Your task to perform on an android device: Search for "usb-a to usb-b" on bestbuy, select the first entry, add it to the cart, then select checkout. Image 0: 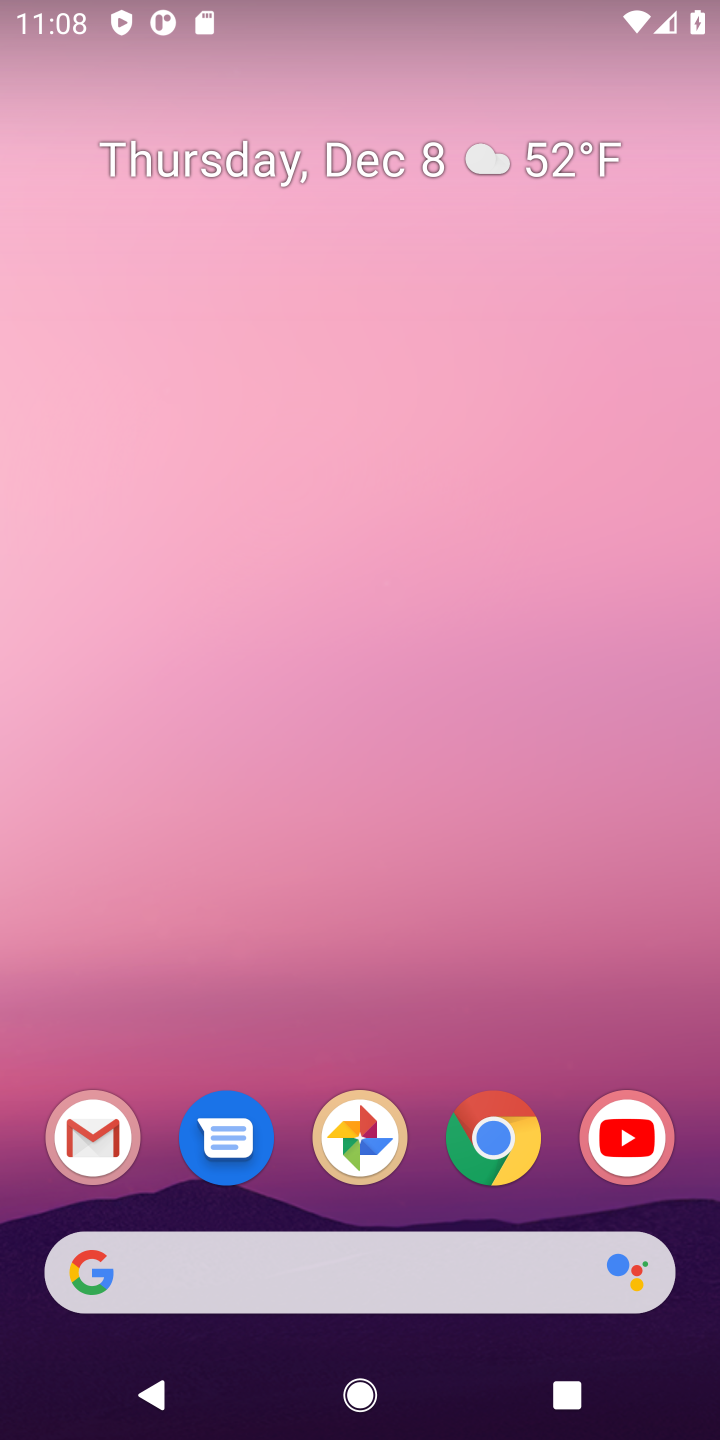
Step 0: click (517, 1167)
Your task to perform on an android device: Search for "usb-a to usb-b" on bestbuy, select the first entry, add it to the cart, then select checkout. Image 1: 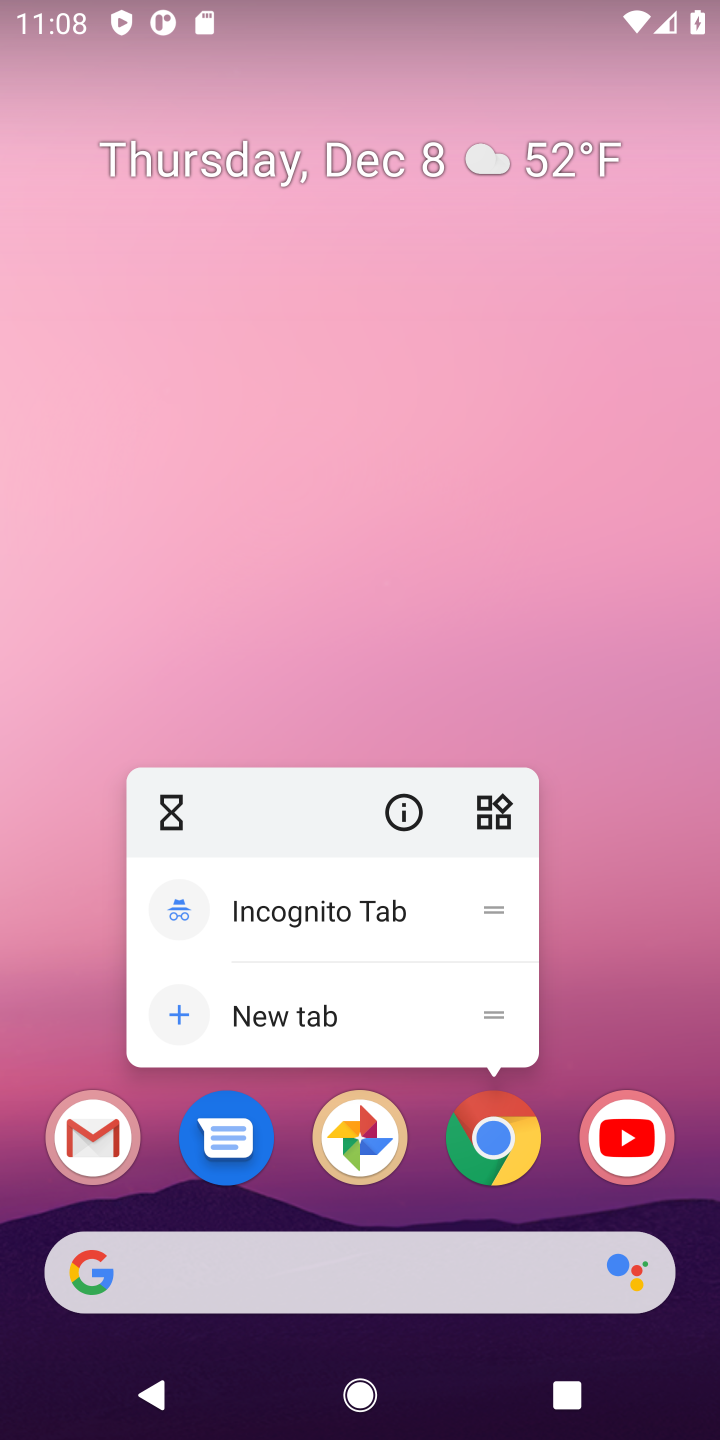
Step 1: click (493, 1145)
Your task to perform on an android device: Search for "usb-a to usb-b" on bestbuy, select the first entry, add it to the cart, then select checkout. Image 2: 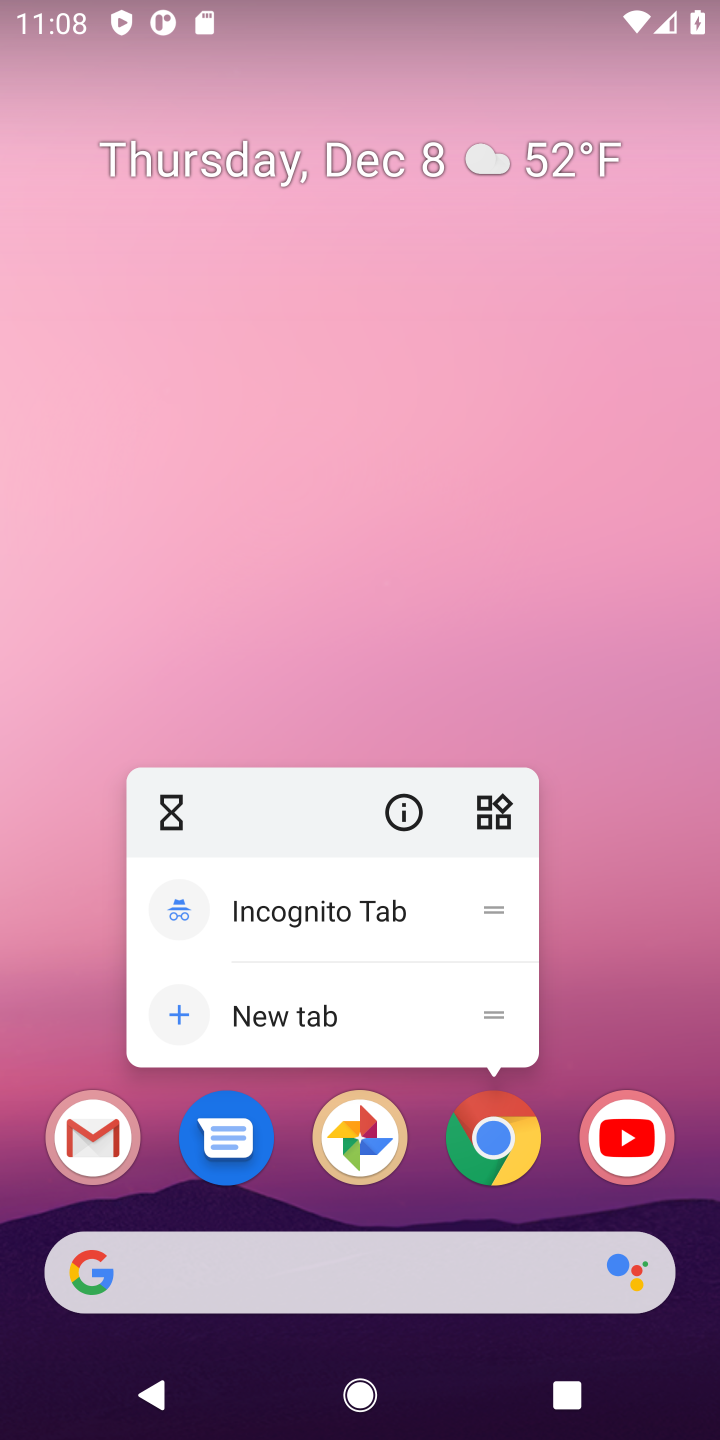
Step 2: click (492, 1145)
Your task to perform on an android device: Search for "usb-a to usb-b" on bestbuy, select the first entry, add it to the cart, then select checkout. Image 3: 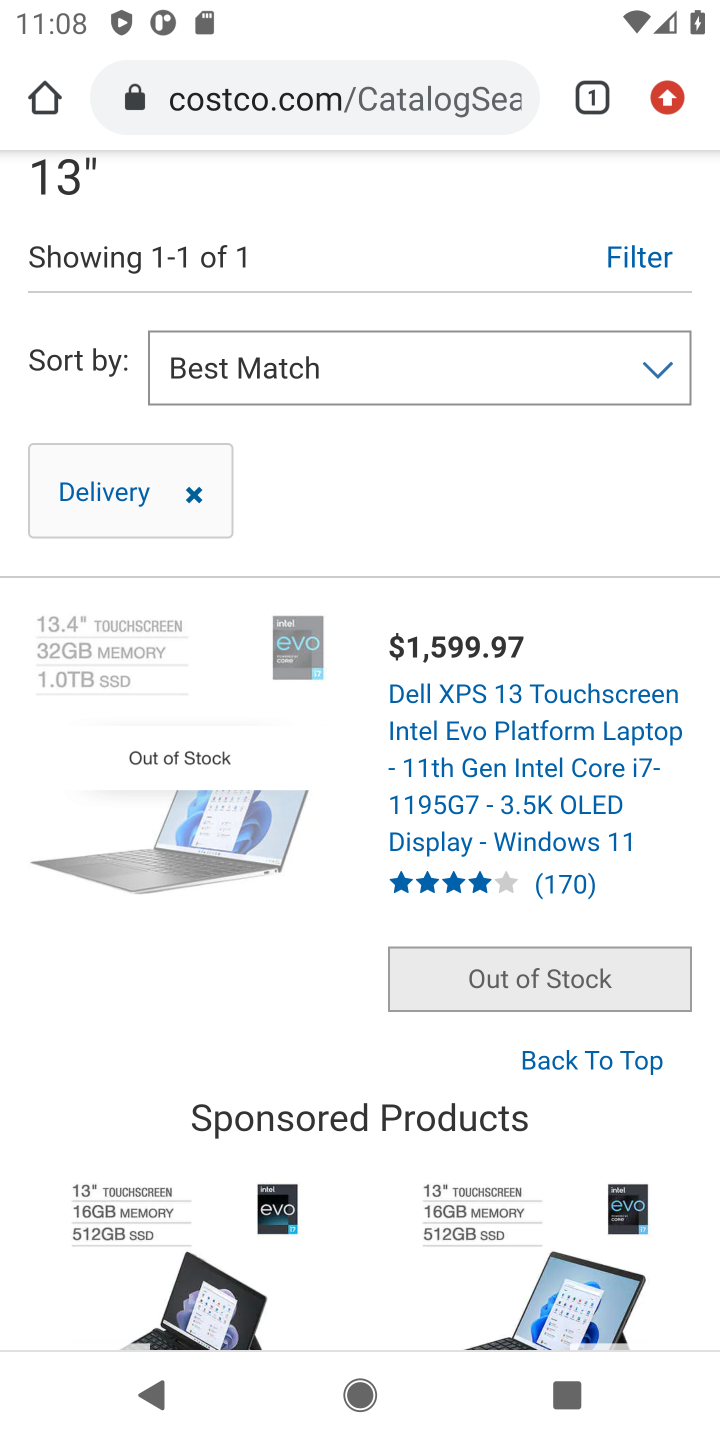
Step 3: click (316, 89)
Your task to perform on an android device: Search for "usb-a to usb-b" on bestbuy, select the first entry, add it to the cart, then select checkout. Image 4: 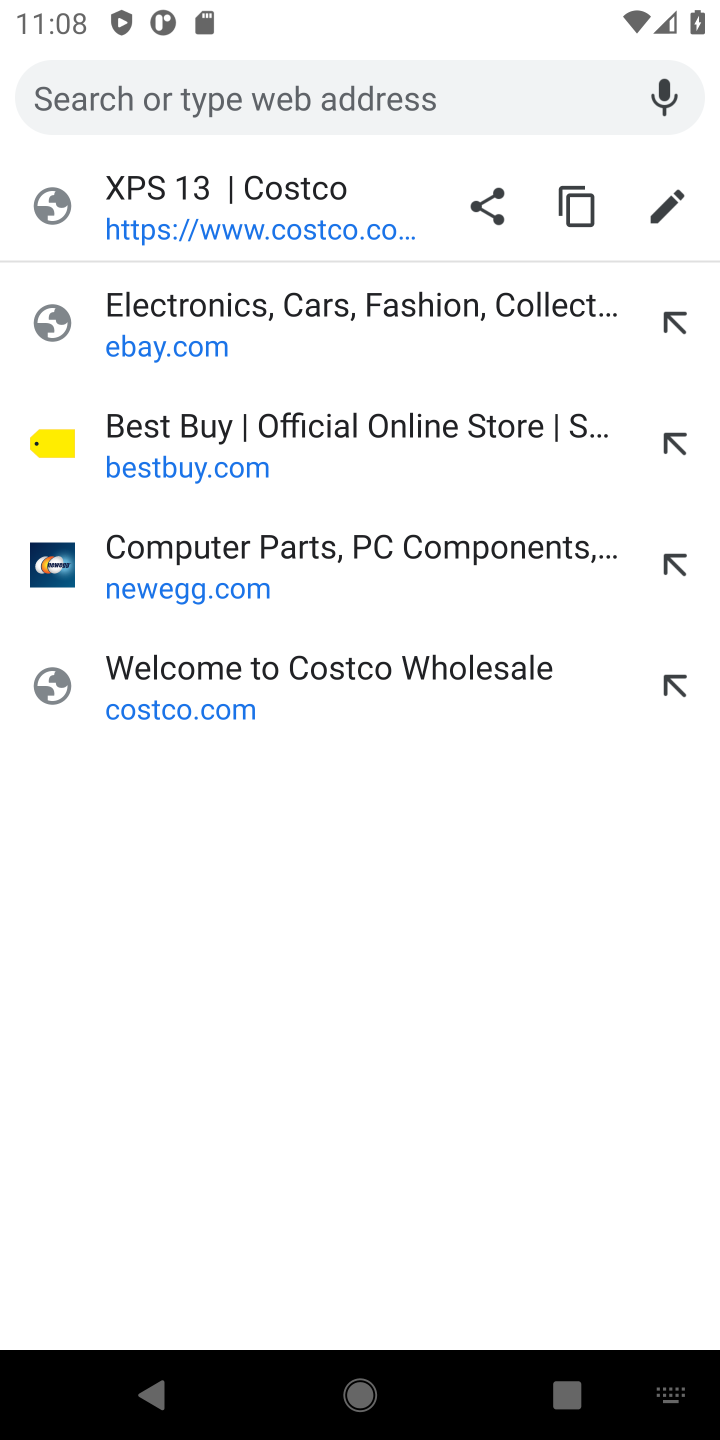
Step 4: type "bestbuy"
Your task to perform on an android device: Search for "usb-a to usb-b" on bestbuy, select the first entry, add it to the cart, then select checkout. Image 5: 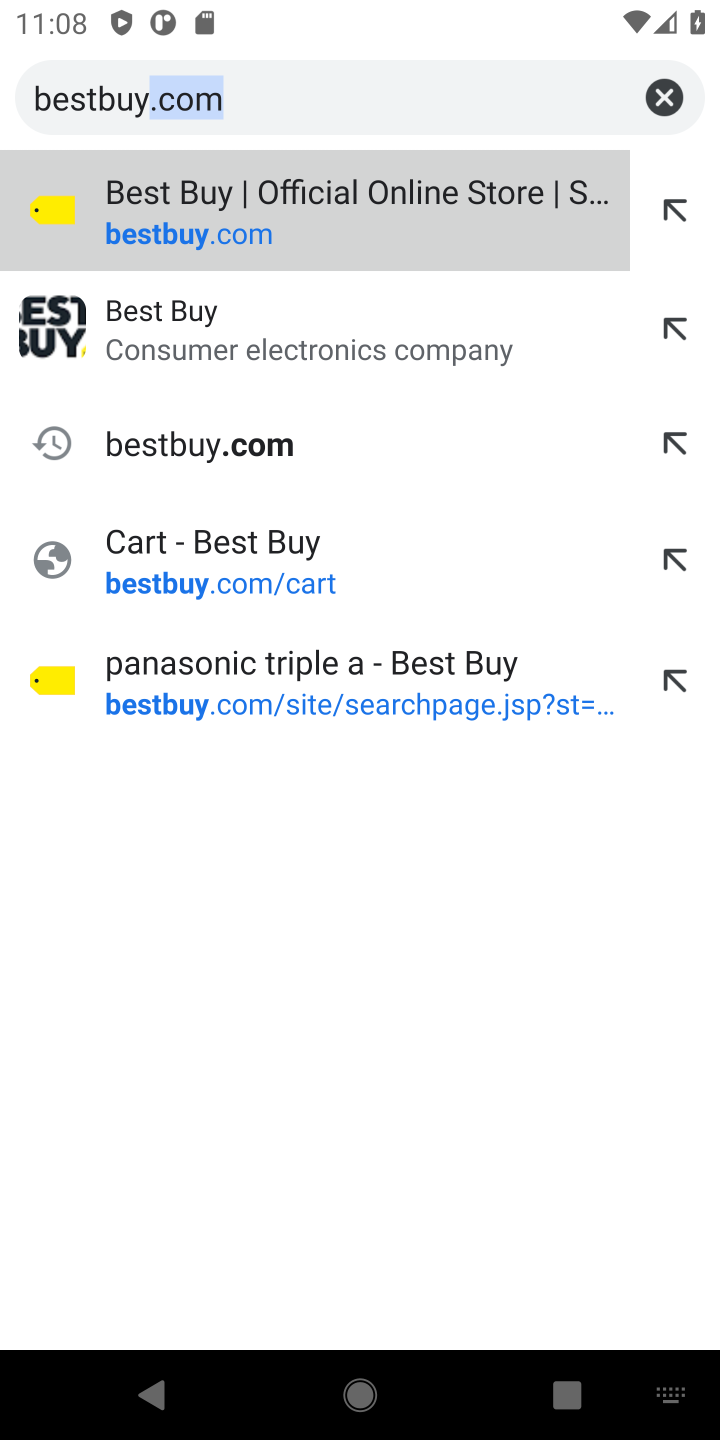
Step 5: click (315, 226)
Your task to perform on an android device: Search for "usb-a to usb-b" on bestbuy, select the first entry, add it to the cart, then select checkout. Image 6: 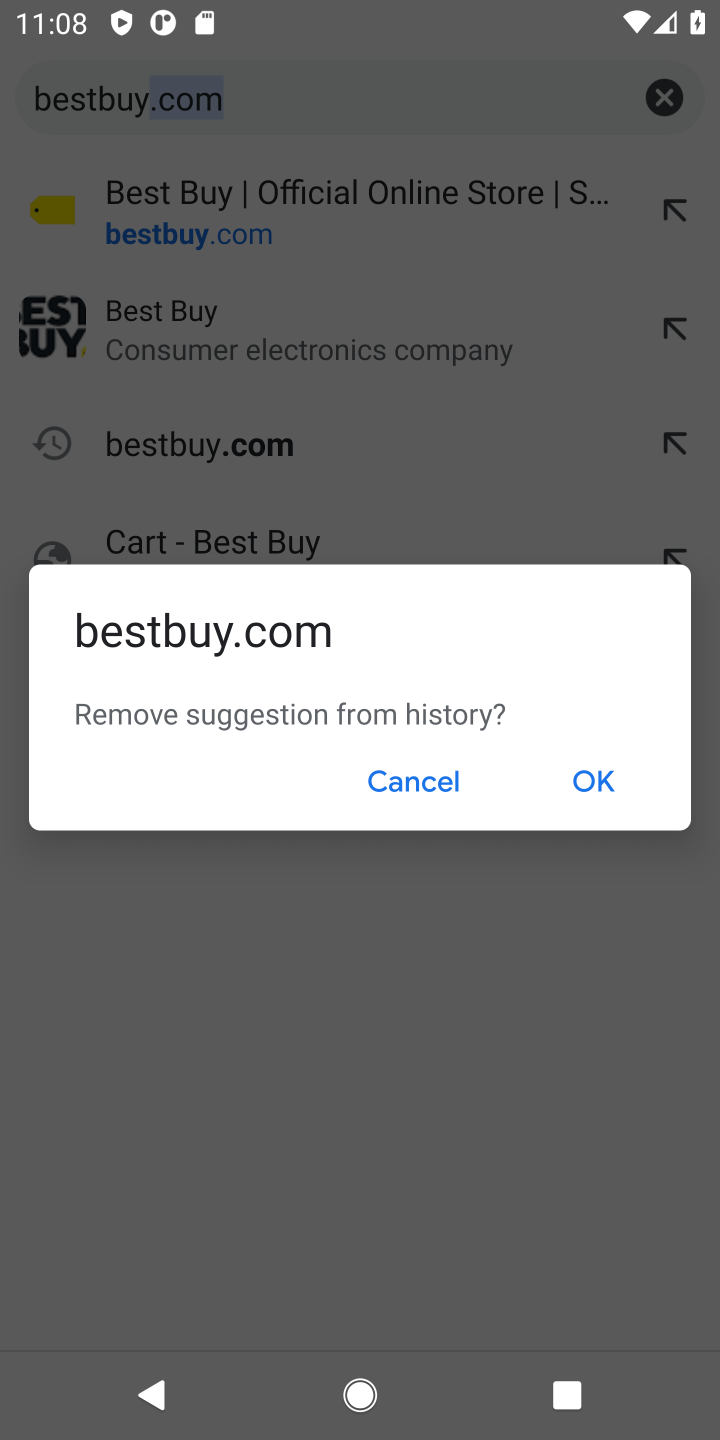
Step 6: click (590, 785)
Your task to perform on an android device: Search for "usb-a to usb-b" on bestbuy, select the first entry, add it to the cart, then select checkout. Image 7: 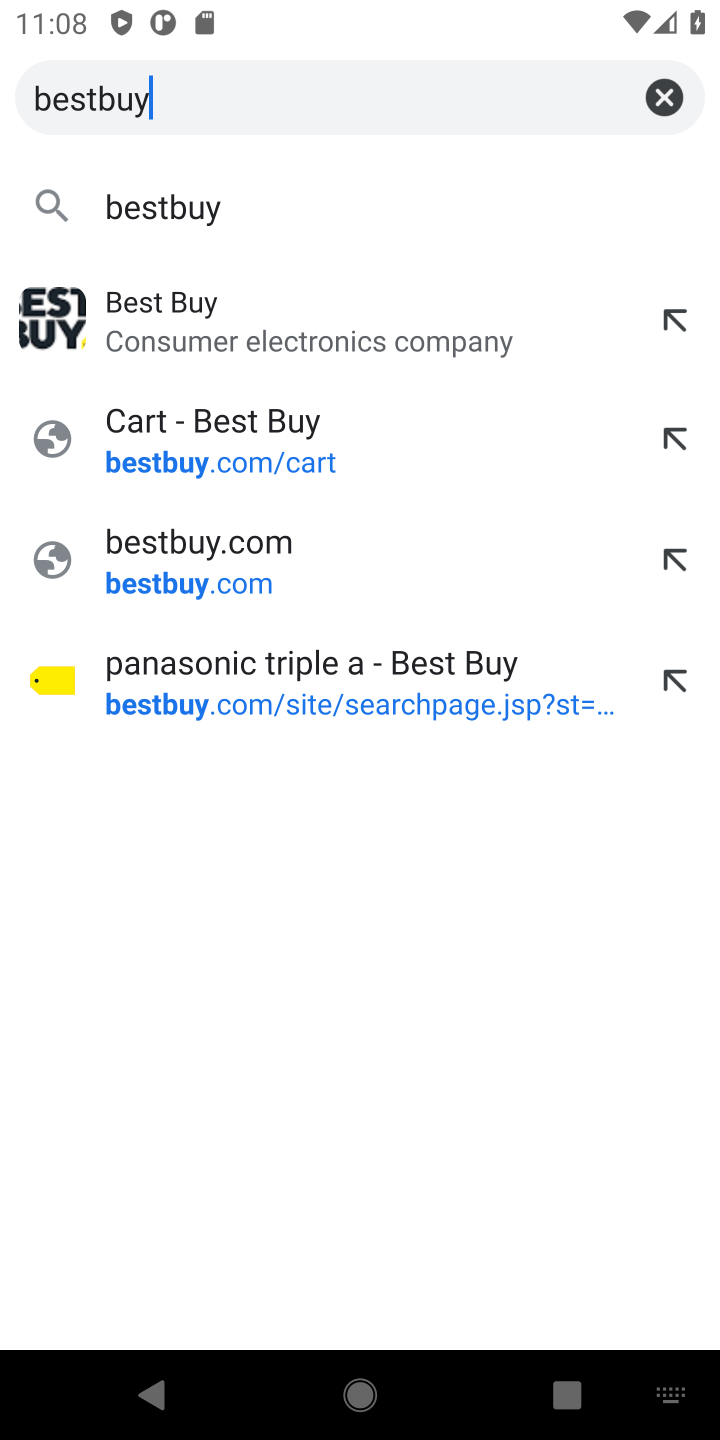
Step 7: click (262, 572)
Your task to perform on an android device: Search for "usb-a to usb-b" on bestbuy, select the first entry, add it to the cart, then select checkout. Image 8: 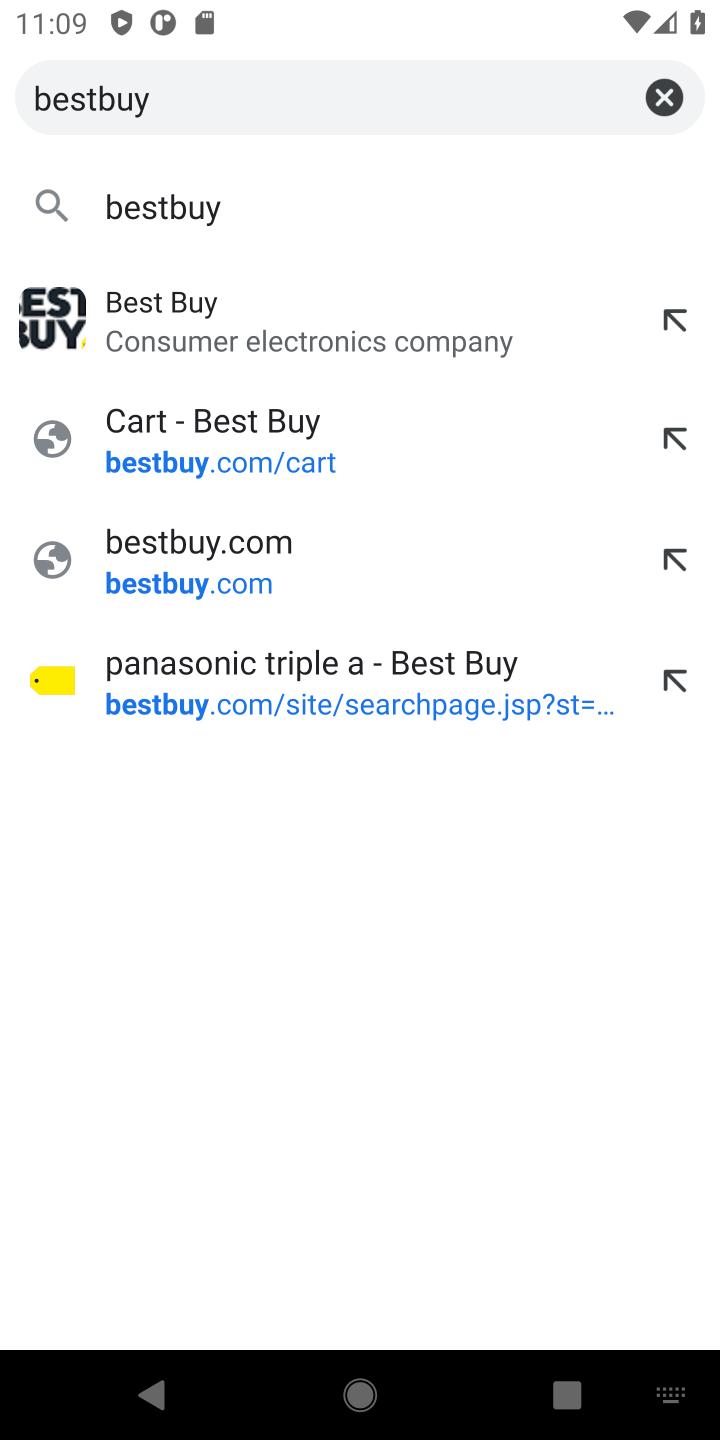
Step 8: click (213, 591)
Your task to perform on an android device: Search for "usb-a to usb-b" on bestbuy, select the first entry, add it to the cart, then select checkout. Image 9: 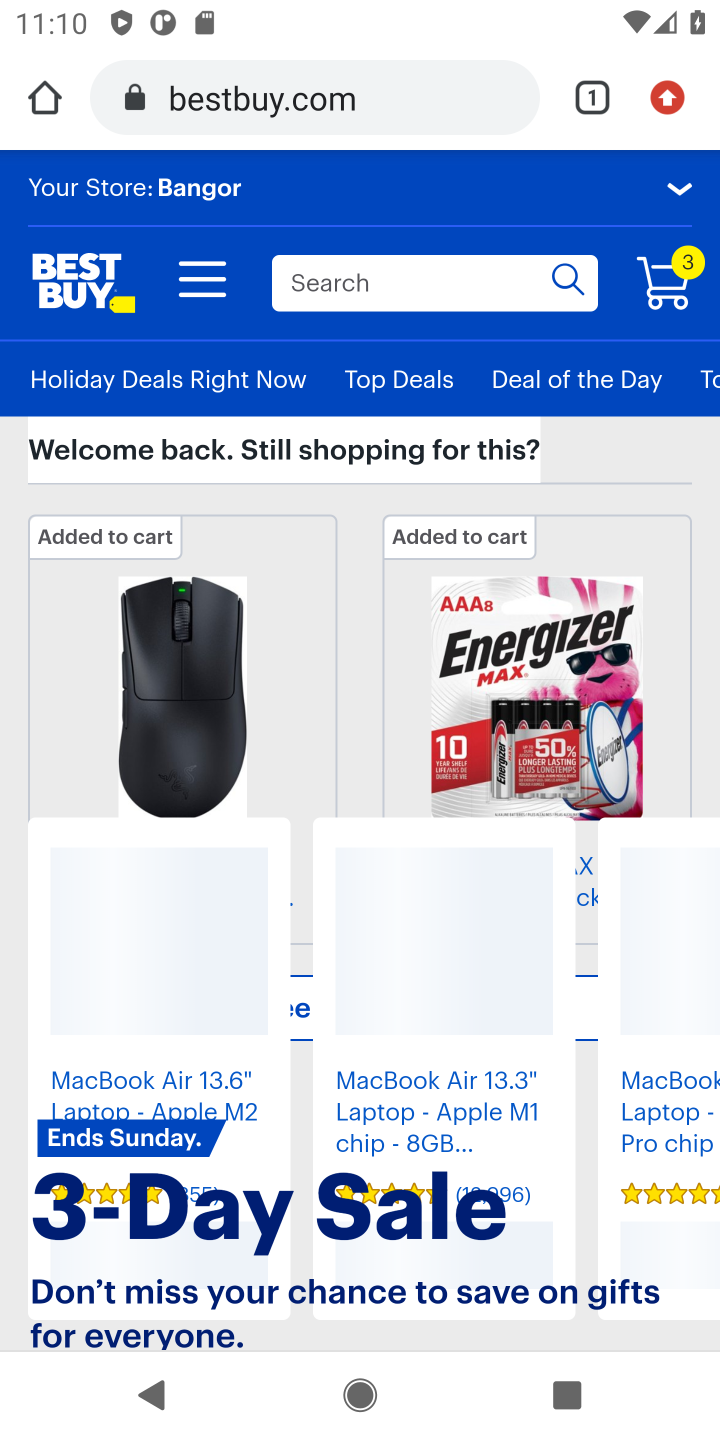
Step 9: click (339, 275)
Your task to perform on an android device: Search for "usb-a to usb-b" on bestbuy, select the first entry, add it to the cart, then select checkout. Image 10: 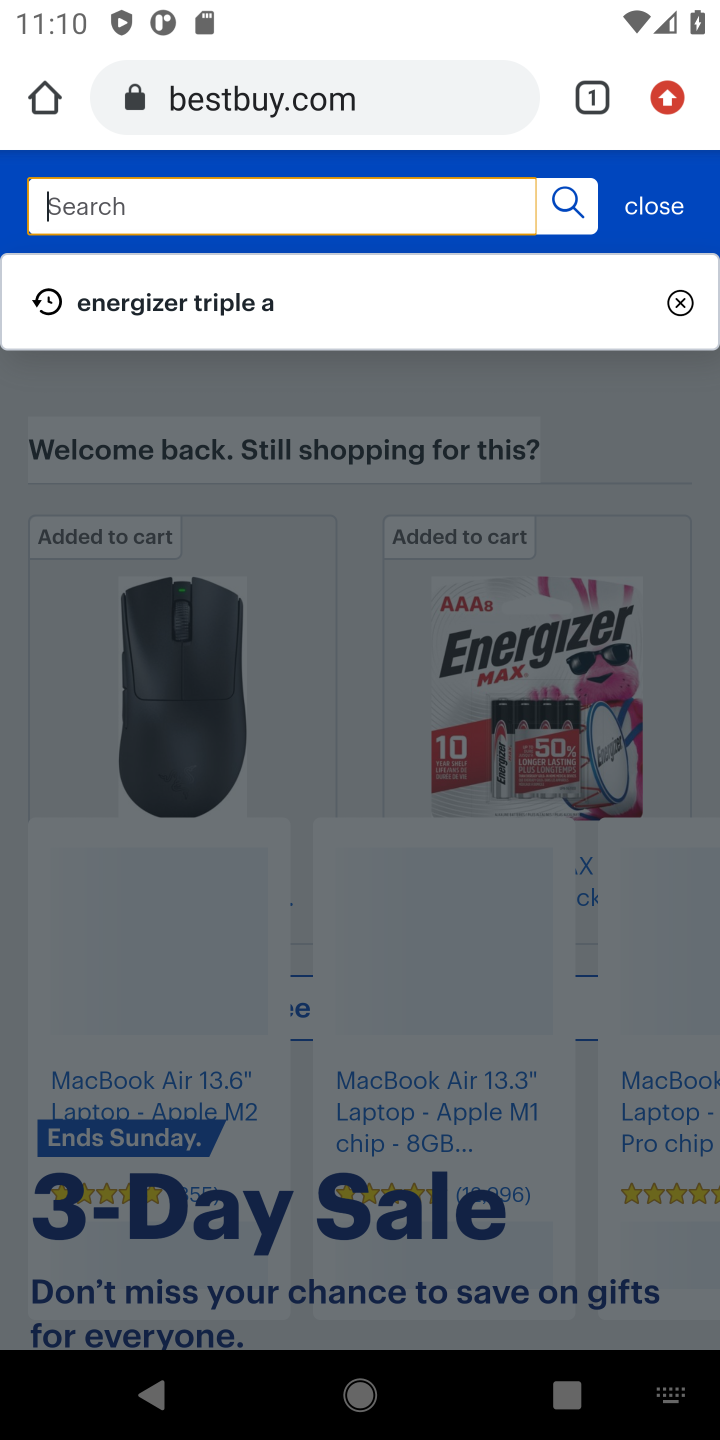
Step 10: type "usb-a to usb-b"
Your task to perform on an android device: Search for "usb-a to usb-b" on bestbuy, select the first entry, add it to the cart, then select checkout. Image 11: 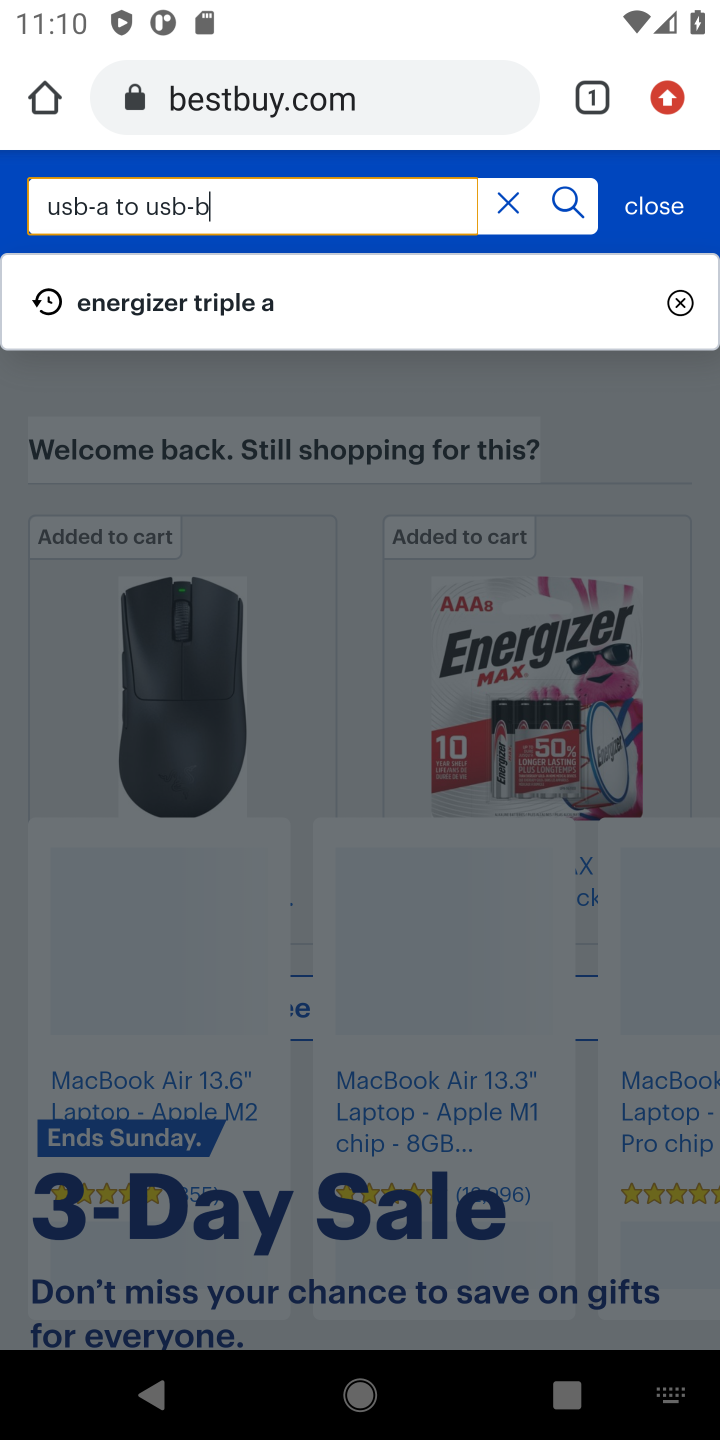
Step 11: press enter
Your task to perform on an android device: Search for "usb-a to usb-b" on bestbuy, select the first entry, add it to the cart, then select checkout. Image 12: 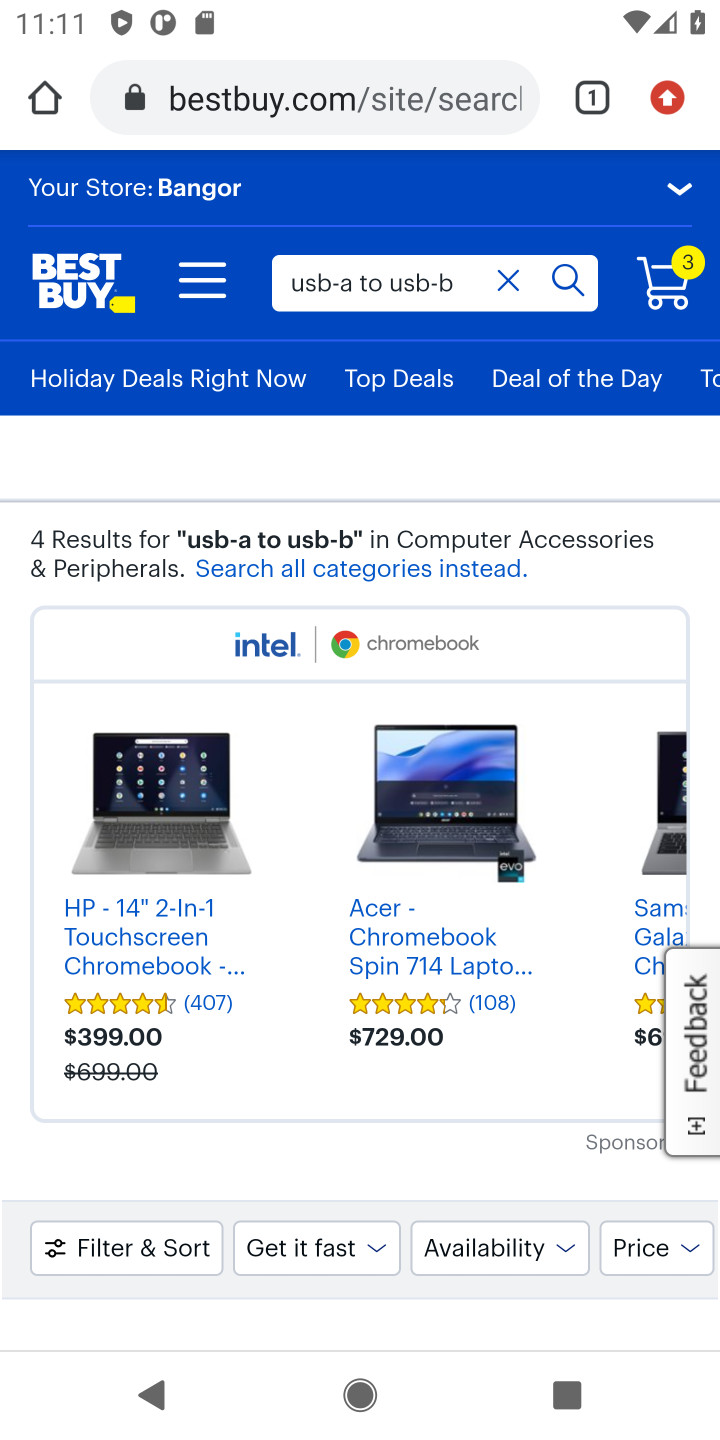
Step 12: drag from (523, 1185) to (507, 253)
Your task to perform on an android device: Search for "usb-a to usb-b" on bestbuy, select the first entry, add it to the cart, then select checkout. Image 13: 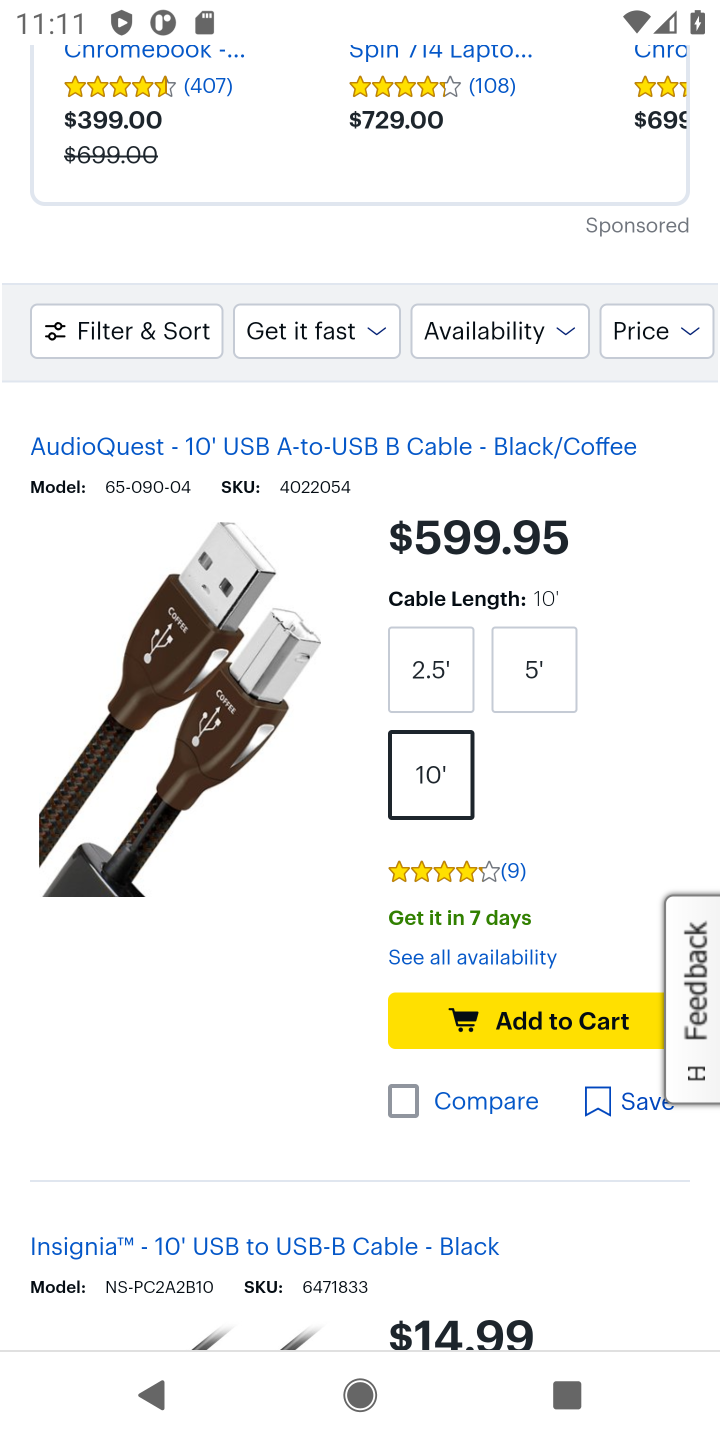
Step 13: click (485, 1022)
Your task to perform on an android device: Search for "usb-a to usb-b" on bestbuy, select the first entry, add it to the cart, then select checkout. Image 14: 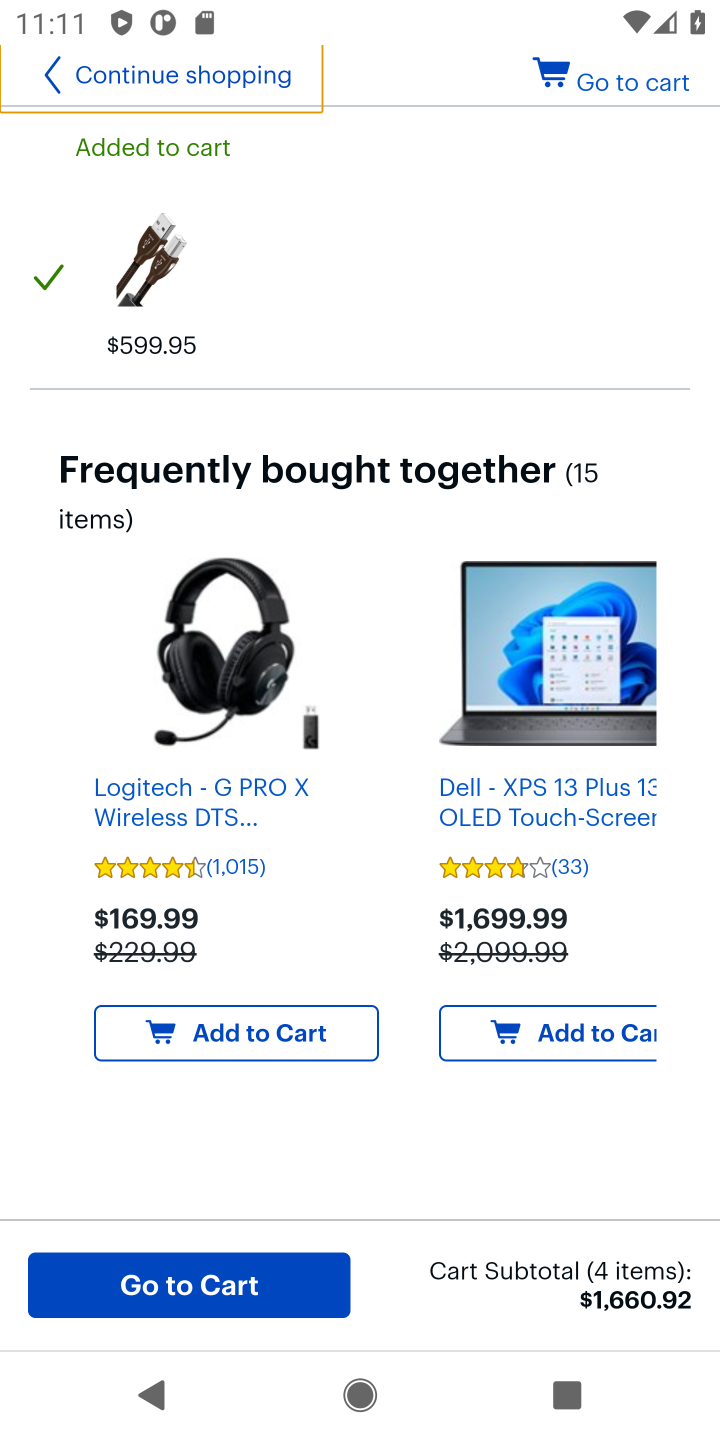
Step 14: click (207, 1278)
Your task to perform on an android device: Search for "usb-a to usb-b" on bestbuy, select the first entry, add it to the cart, then select checkout. Image 15: 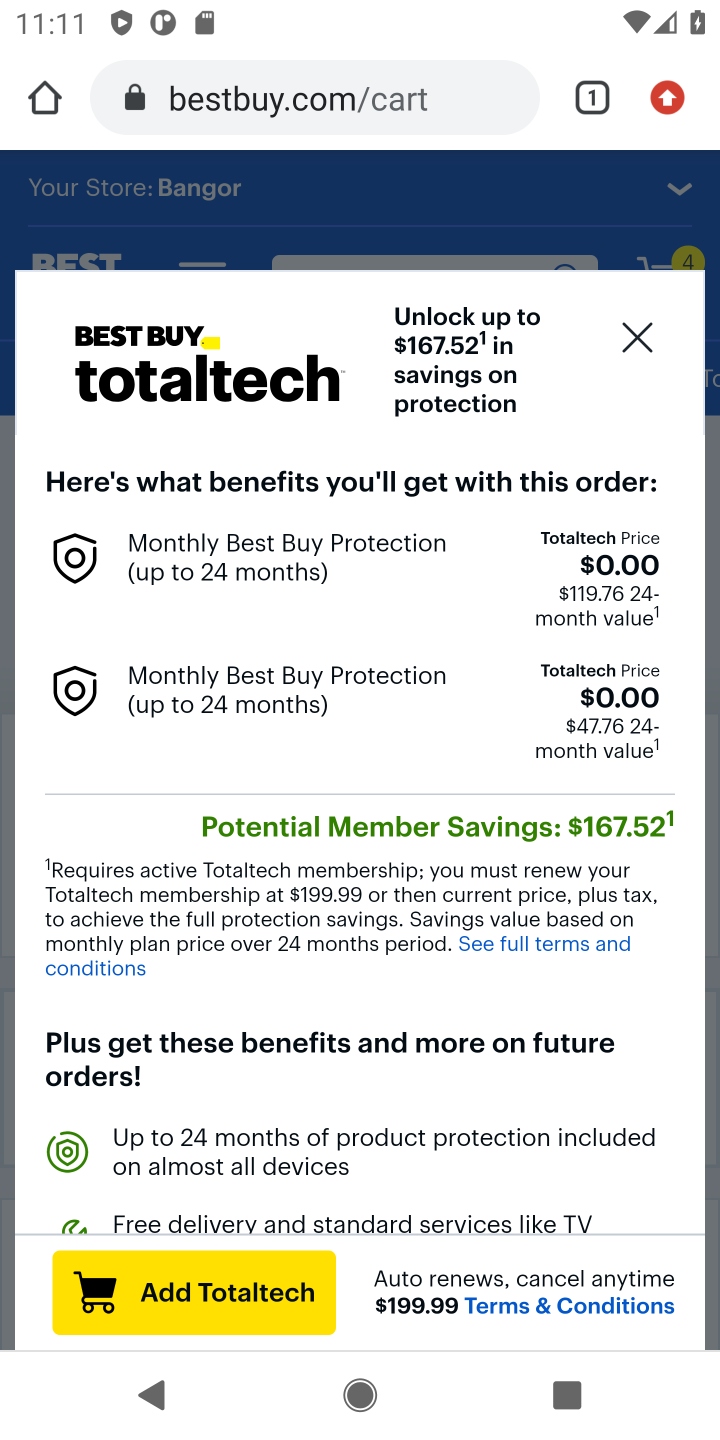
Step 15: click (211, 1301)
Your task to perform on an android device: Search for "usb-a to usb-b" on bestbuy, select the first entry, add it to the cart, then select checkout. Image 16: 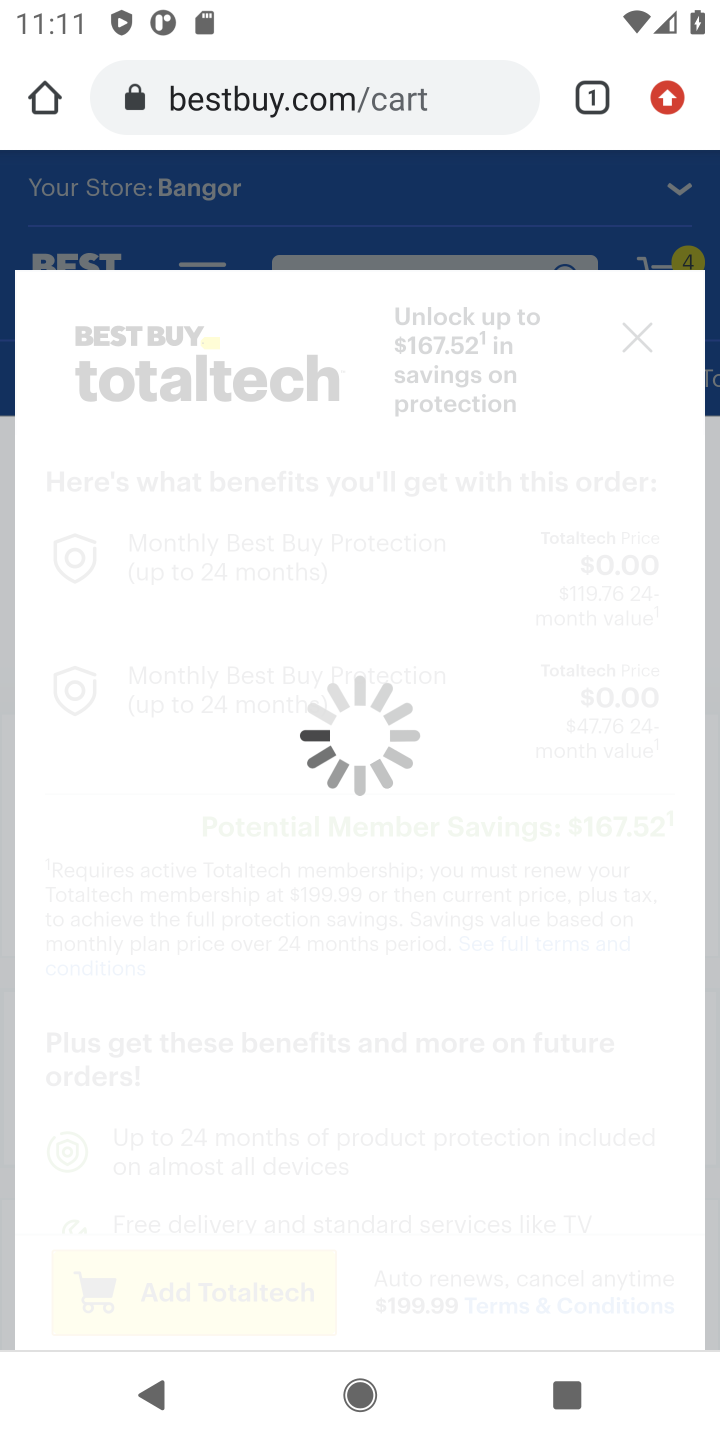
Step 16: drag from (189, 1321) to (144, 1400)
Your task to perform on an android device: Search for "usb-a to usb-b" on bestbuy, select the first entry, add it to the cart, then select checkout. Image 17: 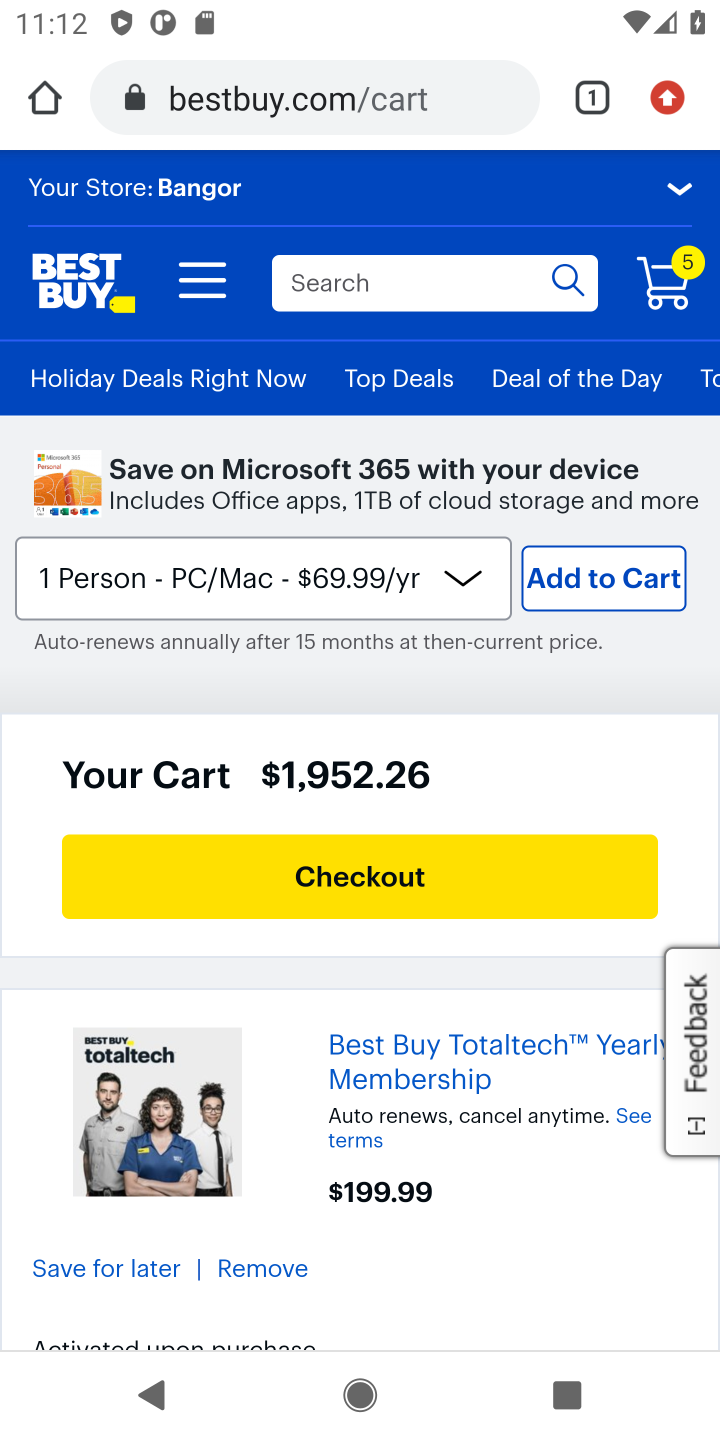
Step 17: click (449, 878)
Your task to perform on an android device: Search for "usb-a to usb-b" on bestbuy, select the first entry, add it to the cart, then select checkout. Image 18: 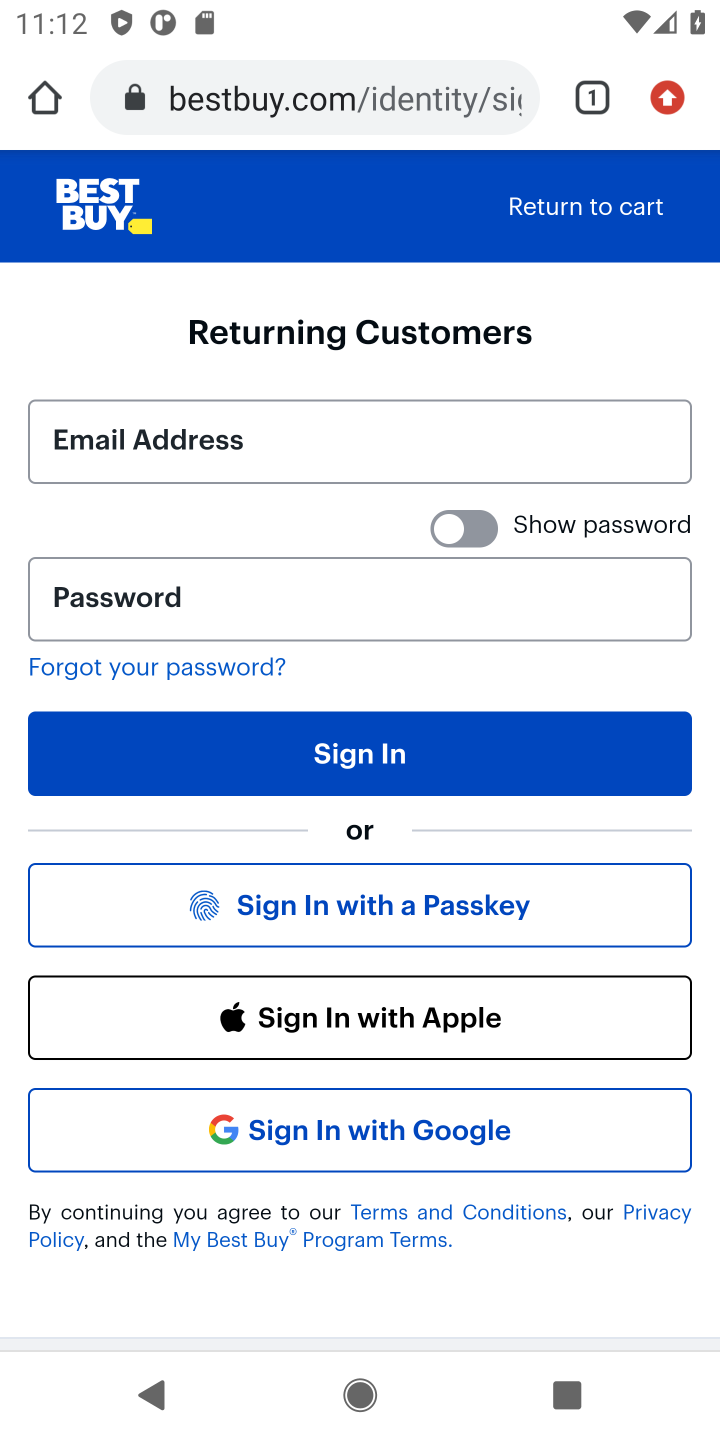
Step 18: task complete